Your task to perform on an android device: What's the weather going to be tomorrow? Image 0: 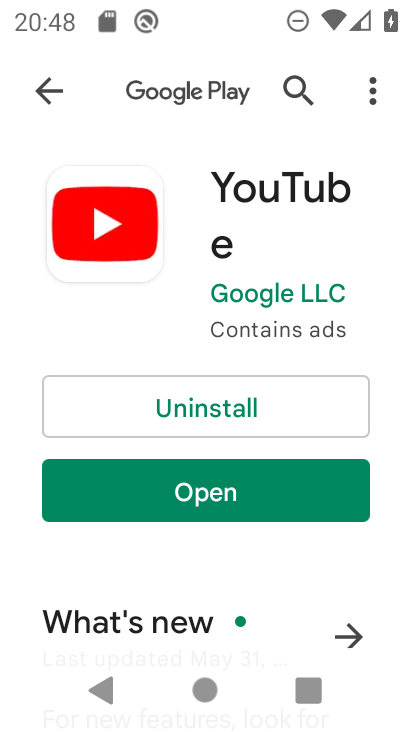
Step 0: press home button
Your task to perform on an android device: What's the weather going to be tomorrow? Image 1: 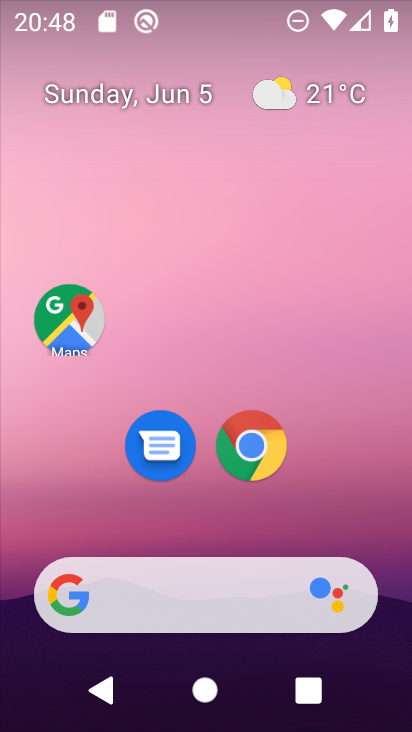
Step 1: click (210, 603)
Your task to perform on an android device: What's the weather going to be tomorrow? Image 2: 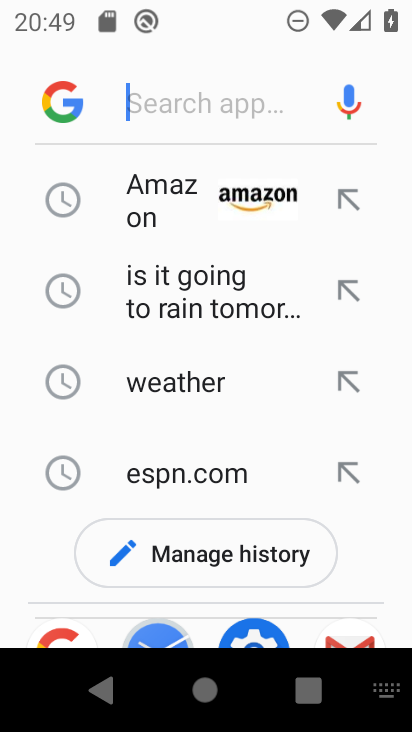
Step 2: type "What's the weather going to be tomorrow?"
Your task to perform on an android device: What's the weather going to be tomorrow? Image 3: 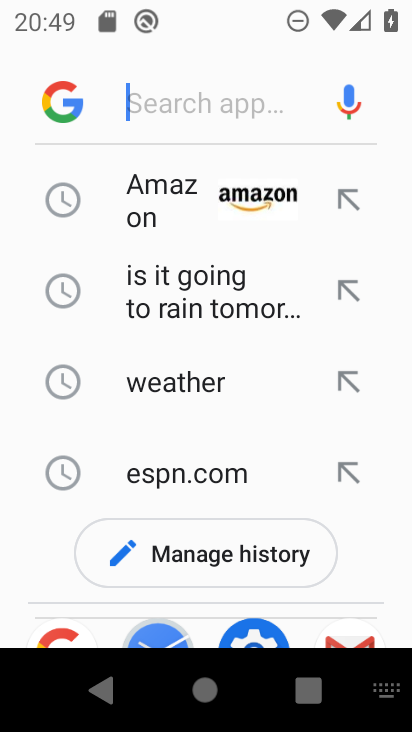
Step 3: click (197, 109)
Your task to perform on an android device: What's the weather going to be tomorrow? Image 4: 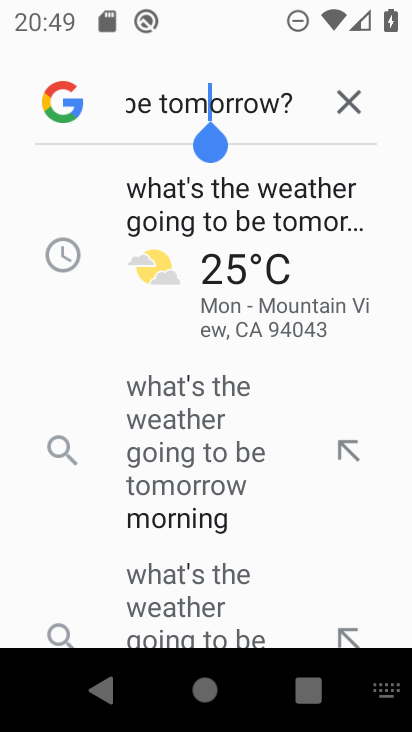
Step 4: click (202, 184)
Your task to perform on an android device: What's the weather going to be tomorrow? Image 5: 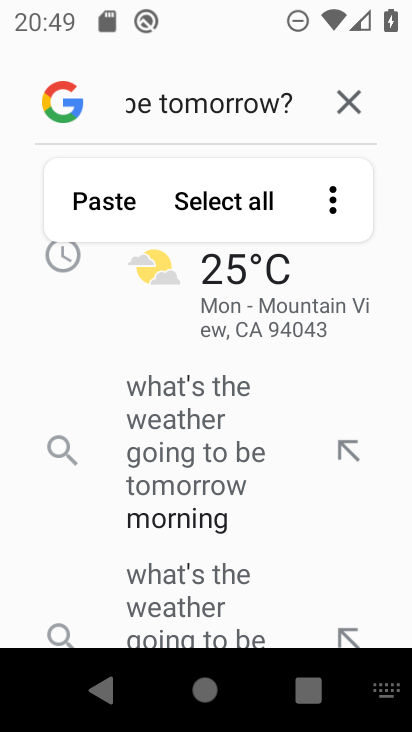
Step 5: click (148, 429)
Your task to perform on an android device: What's the weather going to be tomorrow? Image 6: 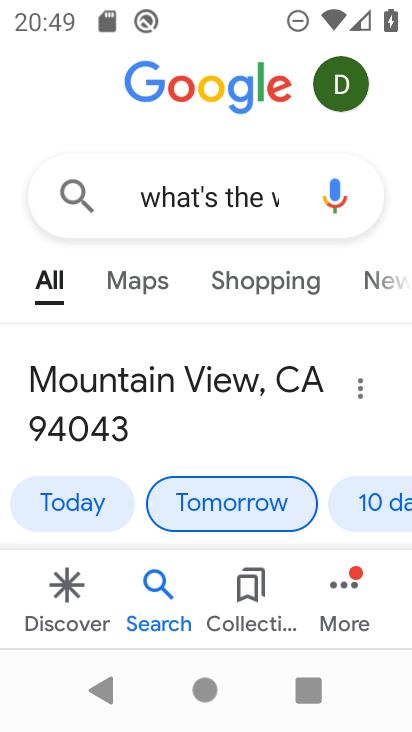
Step 6: task complete